Your task to perform on an android device: toggle pop-ups in chrome Image 0: 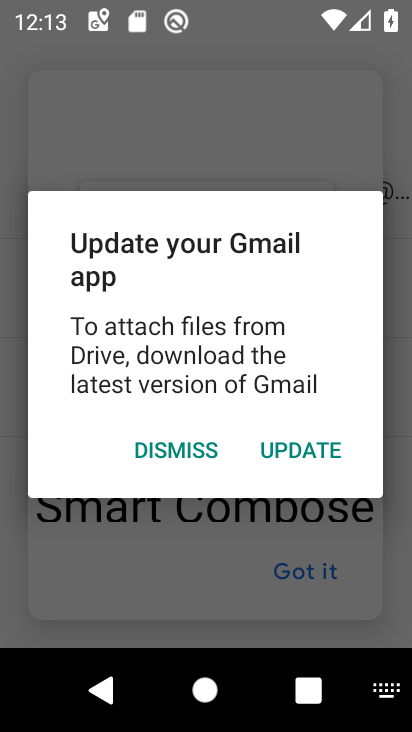
Step 0: press home button
Your task to perform on an android device: toggle pop-ups in chrome Image 1: 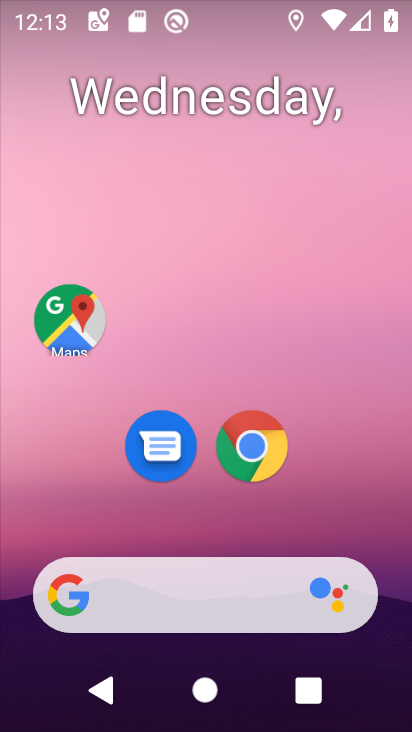
Step 1: click (260, 447)
Your task to perform on an android device: toggle pop-ups in chrome Image 2: 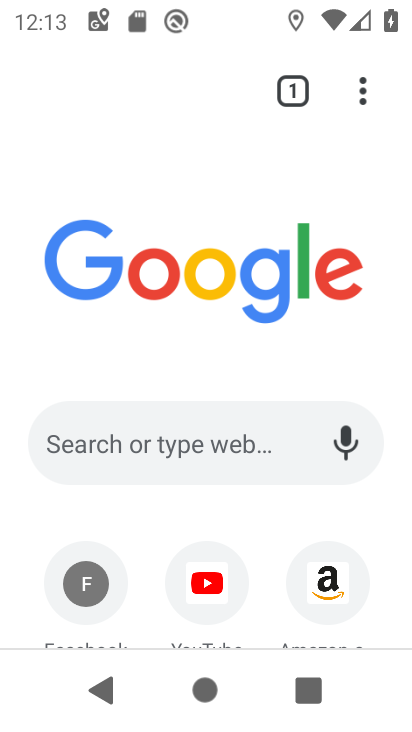
Step 2: click (365, 92)
Your task to perform on an android device: toggle pop-ups in chrome Image 3: 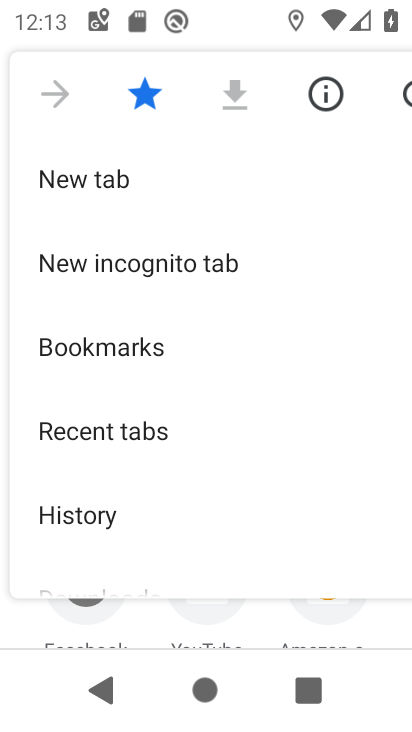
Step 3: drag from (197, 502) to (153, 170)
Your task to perform on an android device: toggle pop-ups in chrome Image 4: 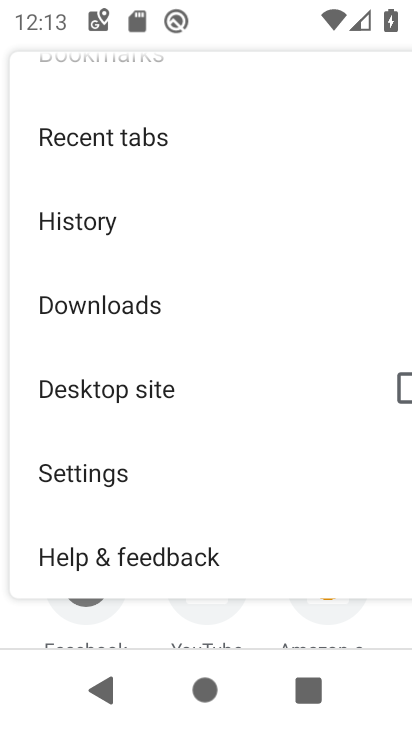
Step 4: click (99, 475)
Your task to perform on an android device: toggle pop-ups in chrome Image 5: 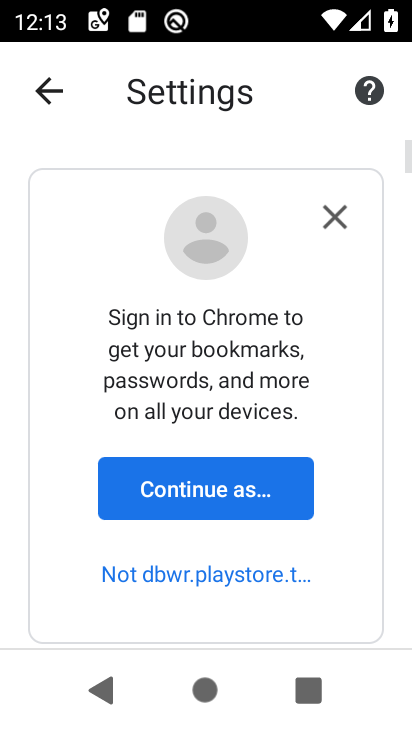
Step 5: drag from (209, 500) to (192, 113)
Your task to perform on an android device: toggle pop-ups in chrome Image 6: 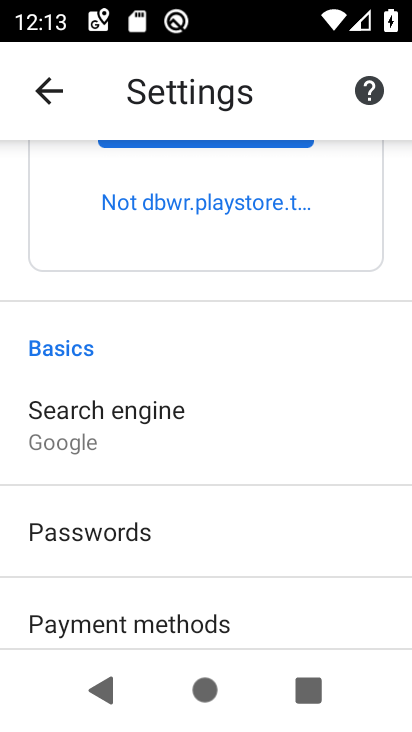
Step 6: drag from (194, 475) to (208, 128)
Your task to perform on an android device: toggle pop-ups in chrome Image 7: 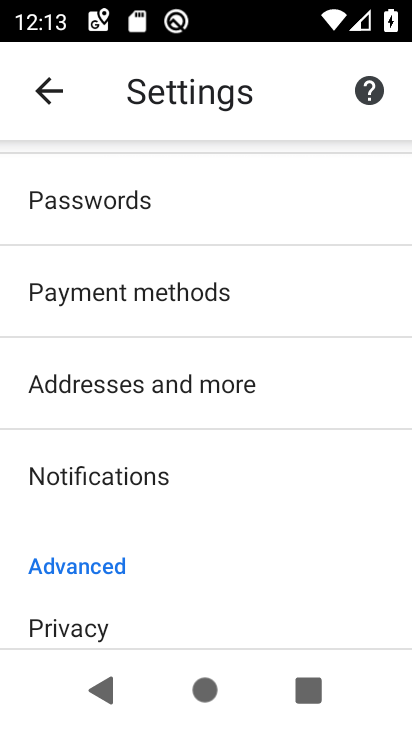
Step 7: drag from (174, 502) to (187, 189)
Your task to perform on an android device: toggle pop-ups in chrome Image 8: 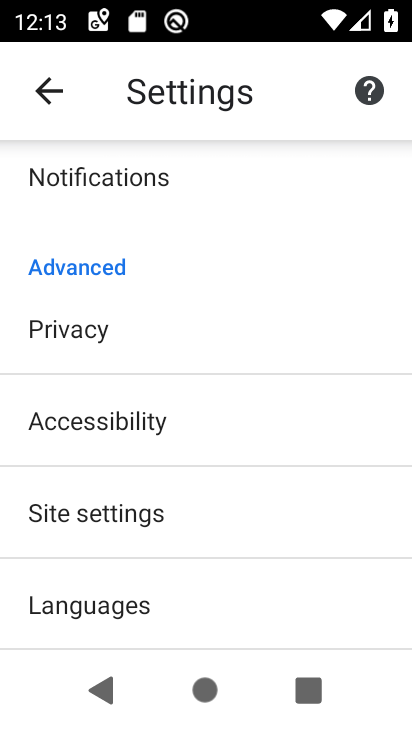
Step 8: click (114, 519)
Your task to perform on an android device: toggle pop-ups in chrome Image 9: 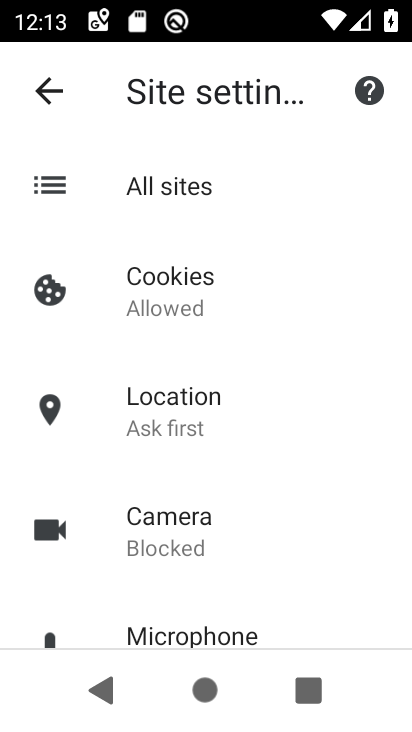
Step 9: drag from (218, 543) to (220, 140)
Your task to perform on an android device: toggle pop-ups in chrome Image 10: 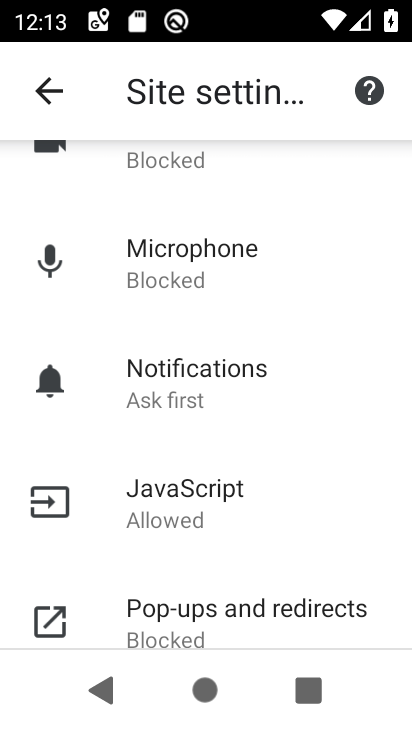
Step 10: click (154, 617)
Your task to perform on an android device: toggle pop-ups in chrome Image 11: 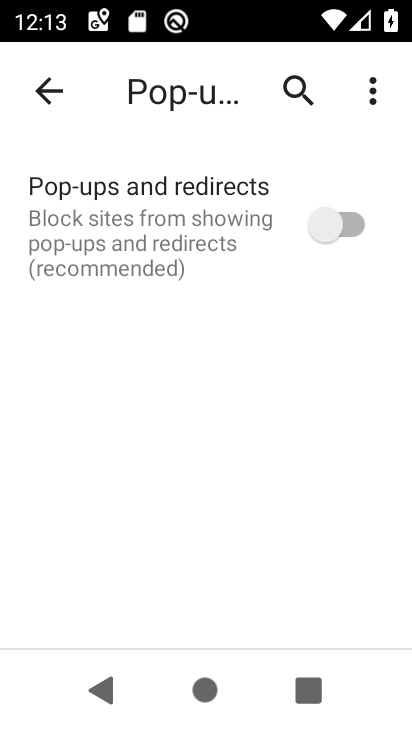
Step 11: click (328, 237)
Your task to perform on an android device: toggle pop-ups in chrome Image 12: 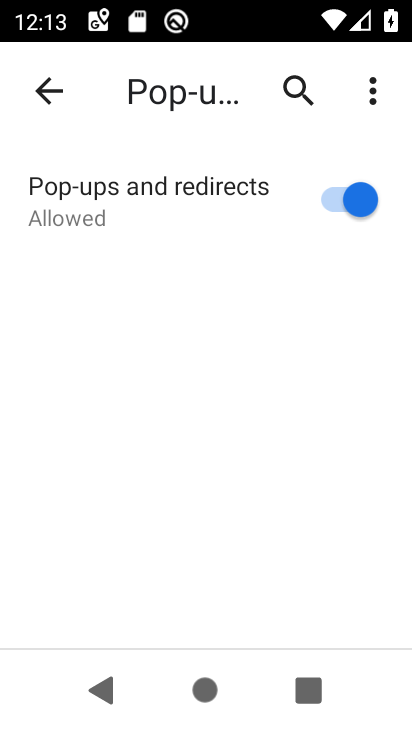
Step 12: task complete